Your task to perform on an android device: open app "Google Chrome" (install if not already installed) Image 0: 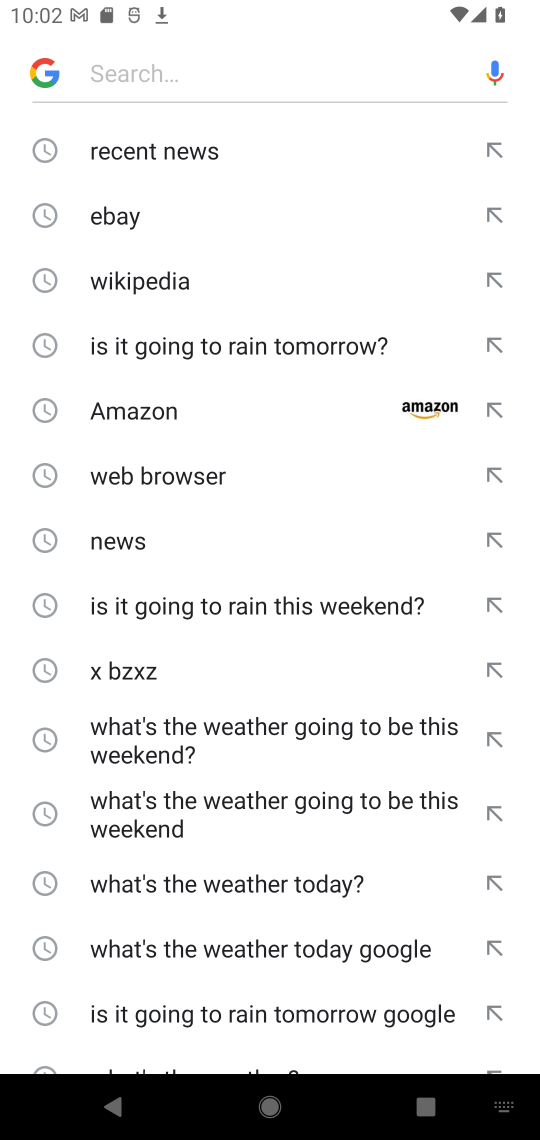
Step 0: press home button
Your task to perform on an android device: open app "Google Chrome" (install if not already installed) Image 1: 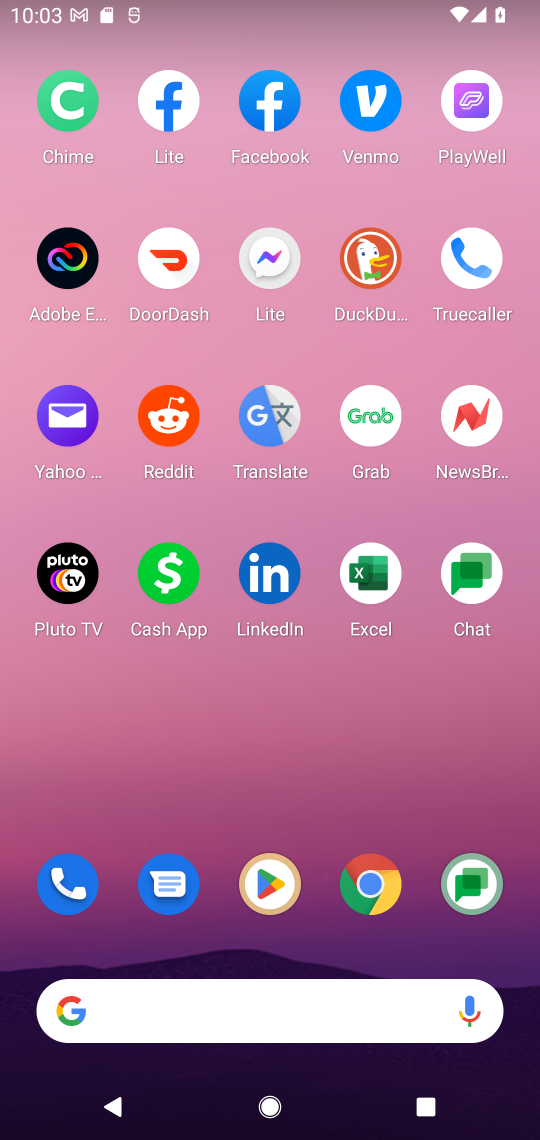
Step 1: click (362, 884)
Your task to perform on an android device: open app "Google Chrome" (install if not already installed) Image 2: 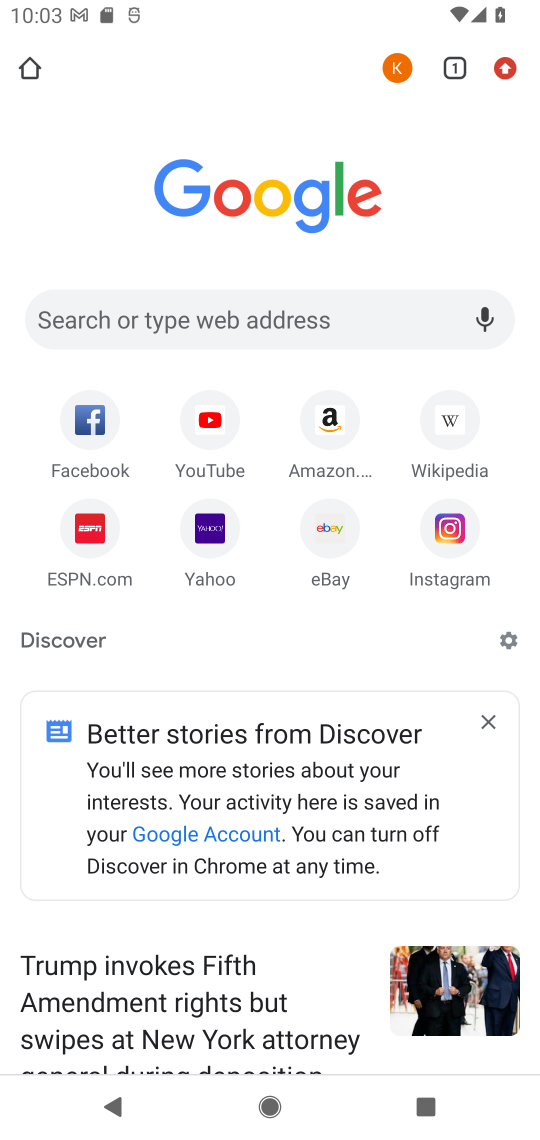
Step 2: task complete